Your task to perform on an android device: change notification settings in the gmail app Image 0: 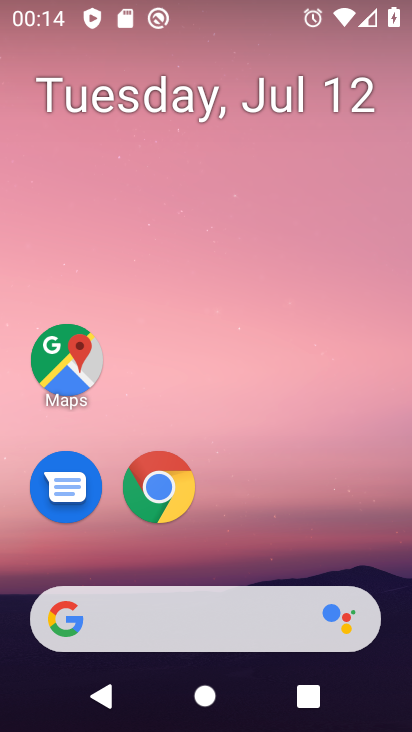
Step 0: drag from (368, 508) to (368, 116)
Your task to perform on an android device: change notification settings in the gmail app Image 1: 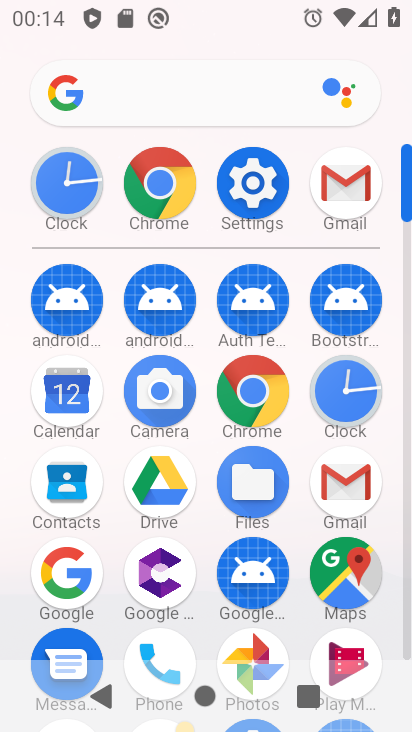
Step 1: click (372, 493)
Your task to perform on an android device: change notification settings in the gmail app Image 2: 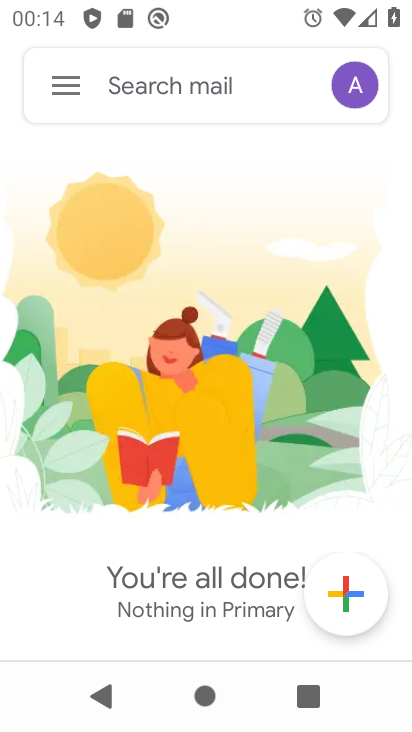
Step 2: click (55, 90)
Your task to perform on an android device: change notification settings in the gmail app Image 3: 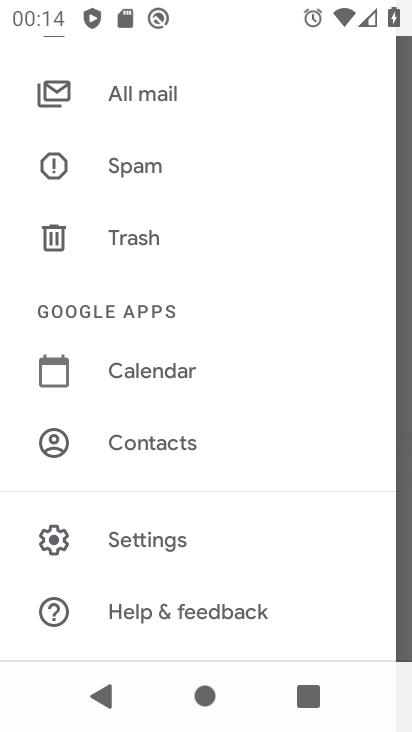
Step 3: drag from (292, 434) to (292, 322)
Your task to perform on an android device: change notification settings in the gmail app Image 4: 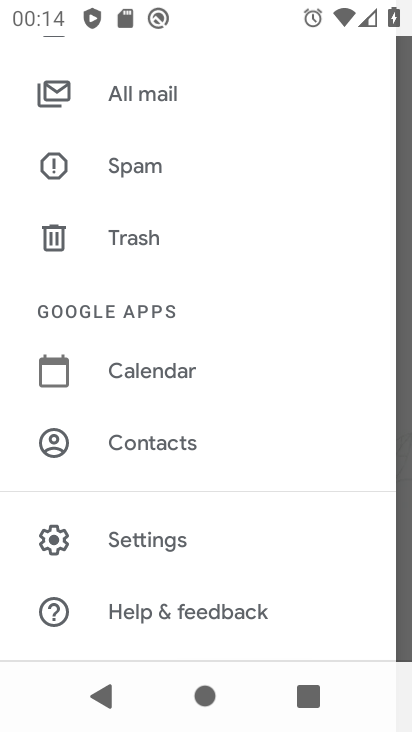
Step 4: click (211, 527)
Your task to perform on an android device: change notification settings in the gmail app Image 5: 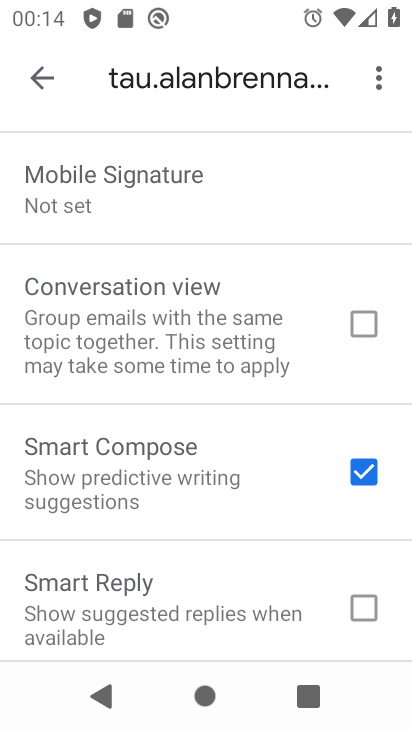
Step 5: drag from (286, 245) to (296, 375)
Your task to perform on an android device: change notification settings in the gmail app Image 6: 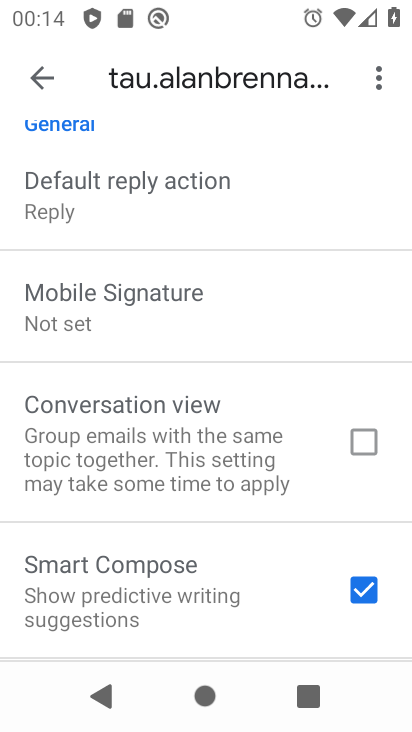
Step 6: drag from (294, 245) to (302, 401)
Your task to perform on an android device: change notification settings in the gmail app Image 7: 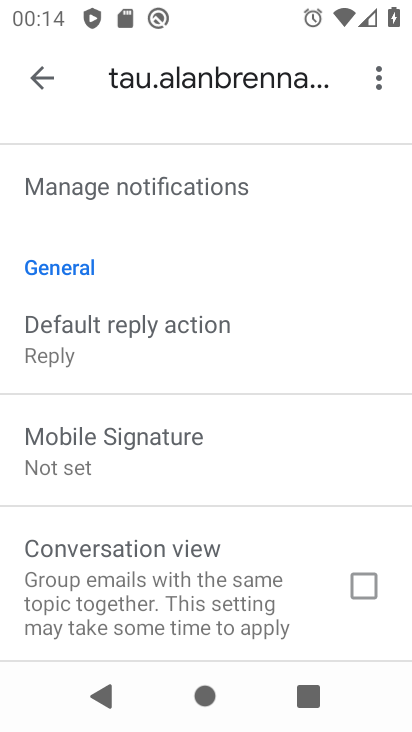
Step 7: drag from (299, 233) to (302, 376)
Your task to perform on an android device: change notification settings in the gmail app Image 8: 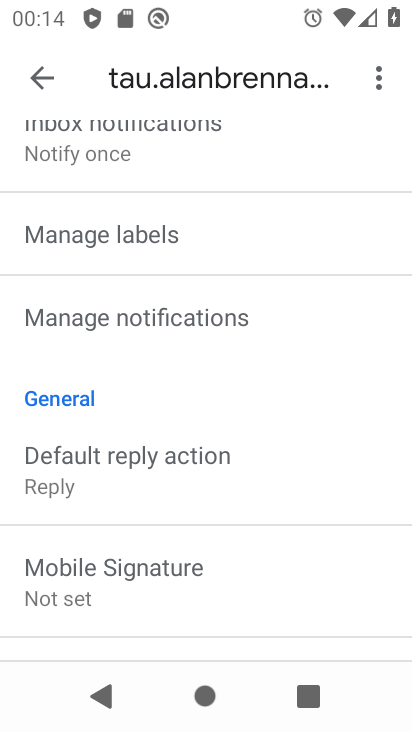
Step 8: drag from (306, 250) to (306, 322)
Your task to perform on an android device: change notification settings in the gmail app Image 9: 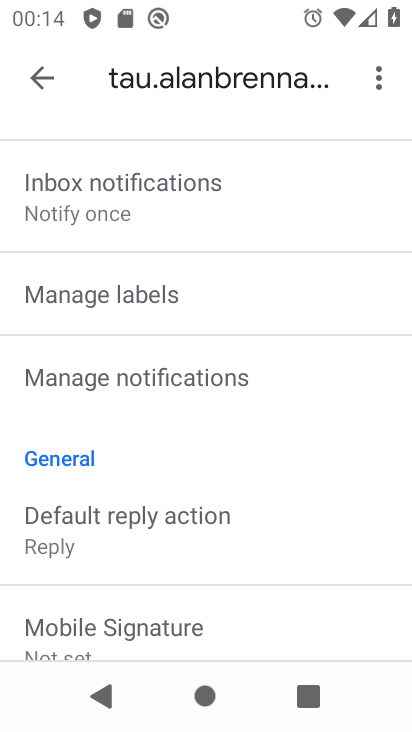
Step 9: drag from (311, 299) to (316, 360)
Your task to perform on an android device: change notification settings in the gmail app Image 10: 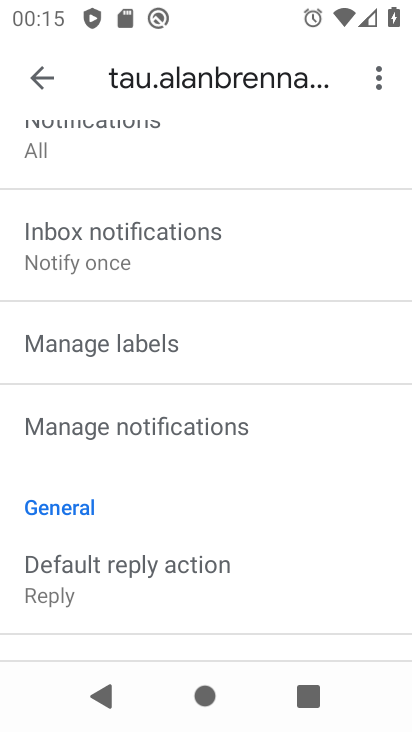
Step 10: drag from (318, 227) to (324, 341)
Your task to perform on an android device: change notification settings in the gmail app Image 11: 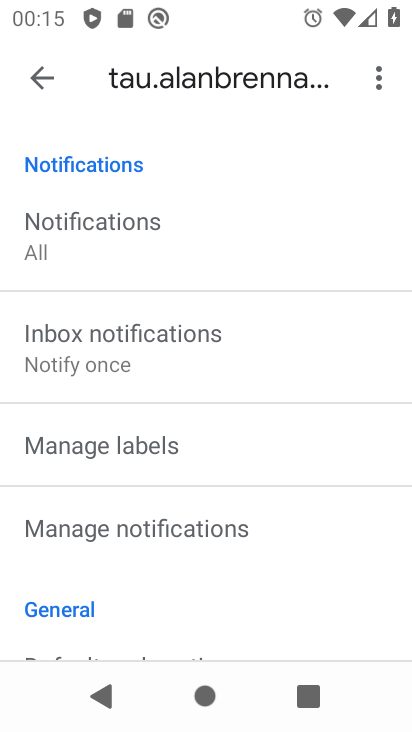
Step 11: drag from (311, 228) to (316, 365)
Your task to perform on an android device: change notification settings in the gmail app Image 12: 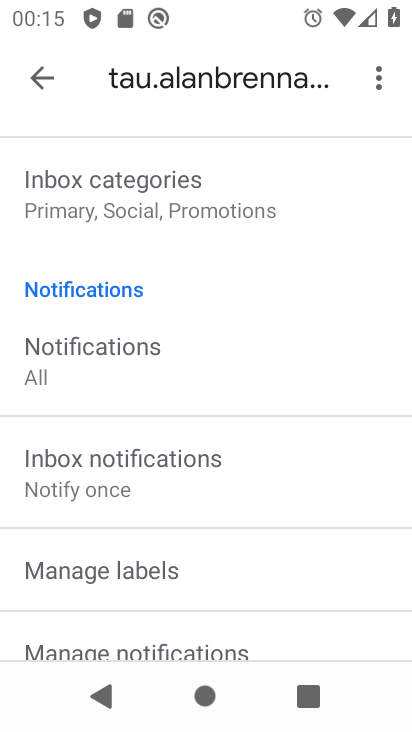
Step 12: drag from (311, 231) to (320, 419)
Your task to perform on an android device: change notification settings in the gmail app Image 13: 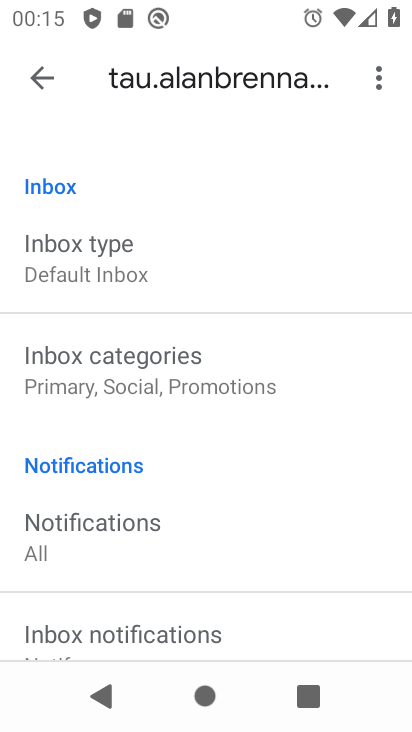
Step 13: drag from (300, 232) to (298, 382)
Your task to perform on an android device: change notification settings in the gmail app Image 14: 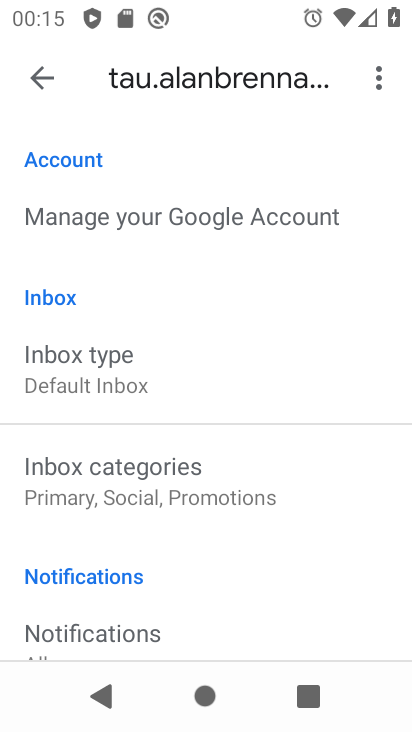
Step 14: drag from (291, 419) to (289, 275)
Your task to perform on an android device: change notification settings in the gmail app Image 15: 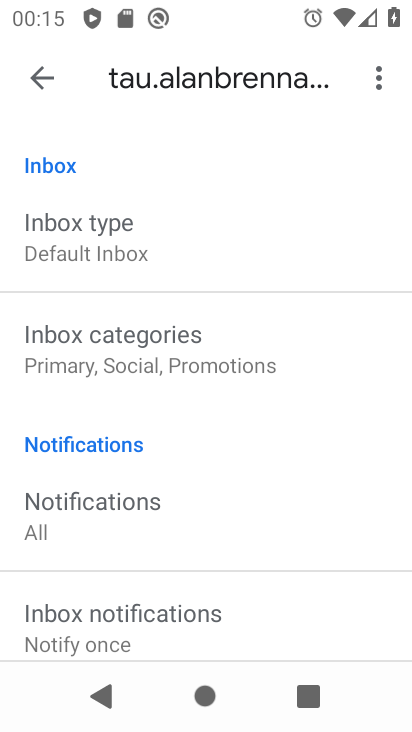
Step 15: click (243, 517)
Your task to perform on an android device: change notification settings in the gmail app Image 16: 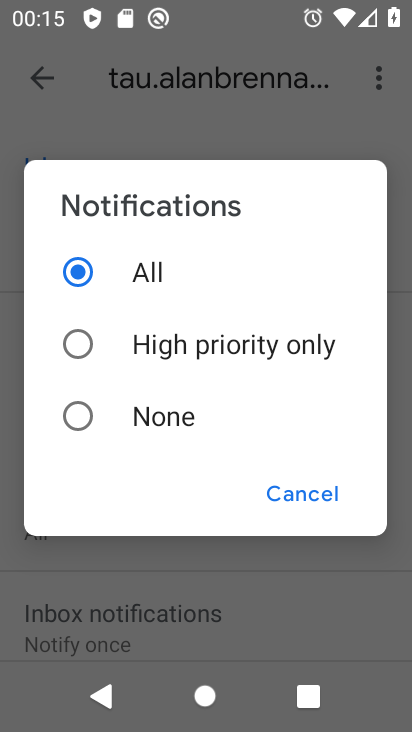
Step 16: click (229, 352)
Your task to perform on an android device: change notification settings in the gmail app Image 17: 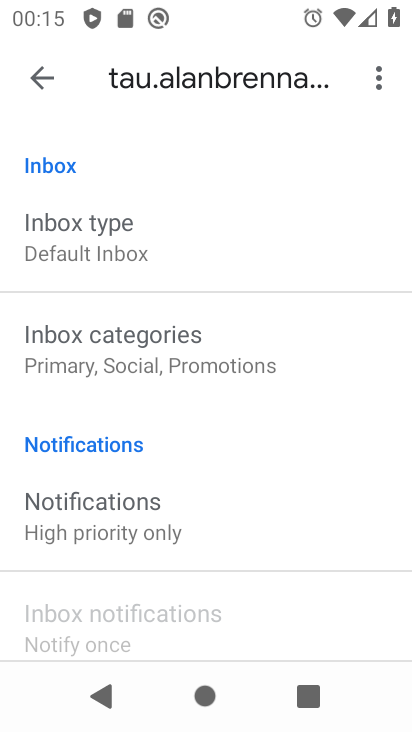
Step 17: task complete